Your task to perform on an android device: Clear the cart on amazon. Search for "lenovo thinkpad" on amazon, select the first entry, add it to the cart, then select checkout. Image 0: 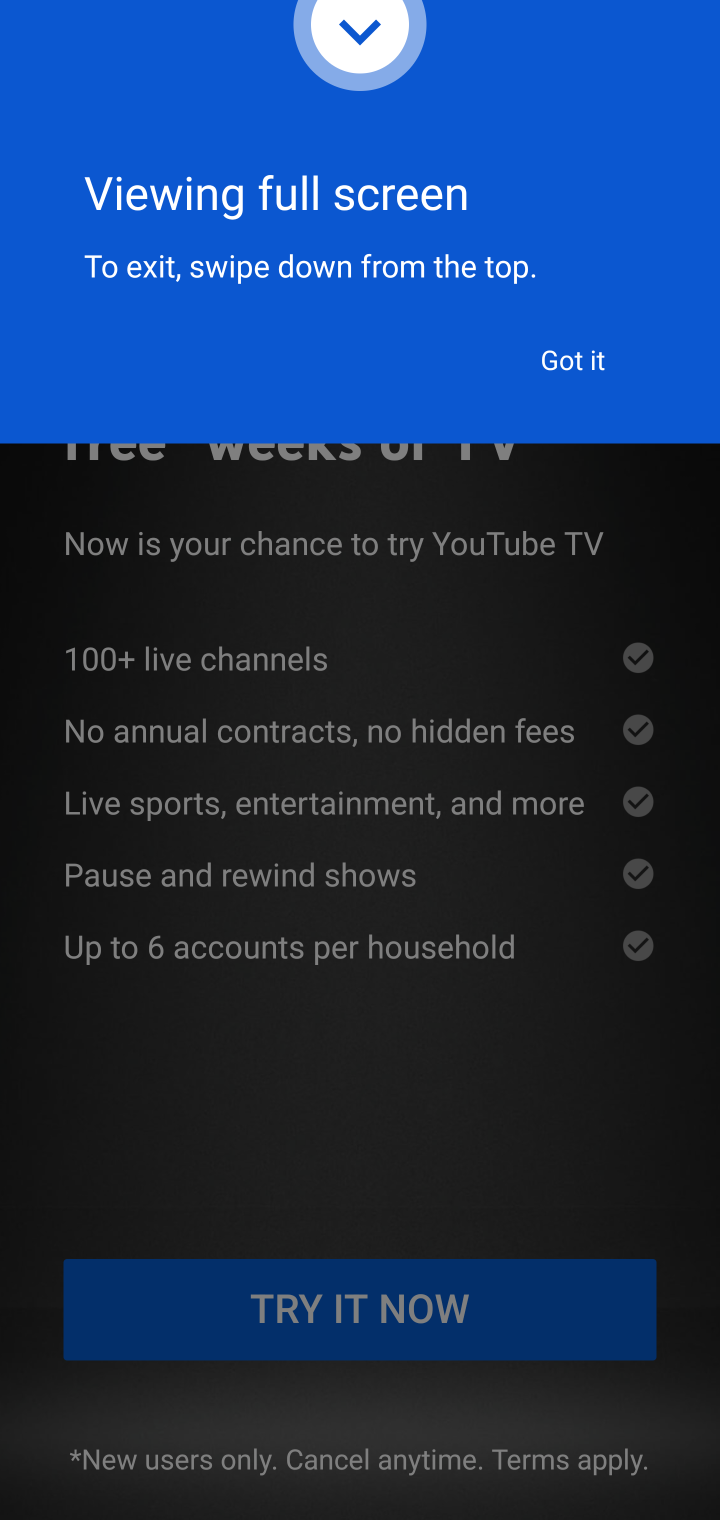
Step 0: press home button
Your task to perform on an android device: Clear the cart on amazon. Search for "lenovo thinkpad" on amazon, select the first entry, add it to the cart, then select checkout. Image 1: 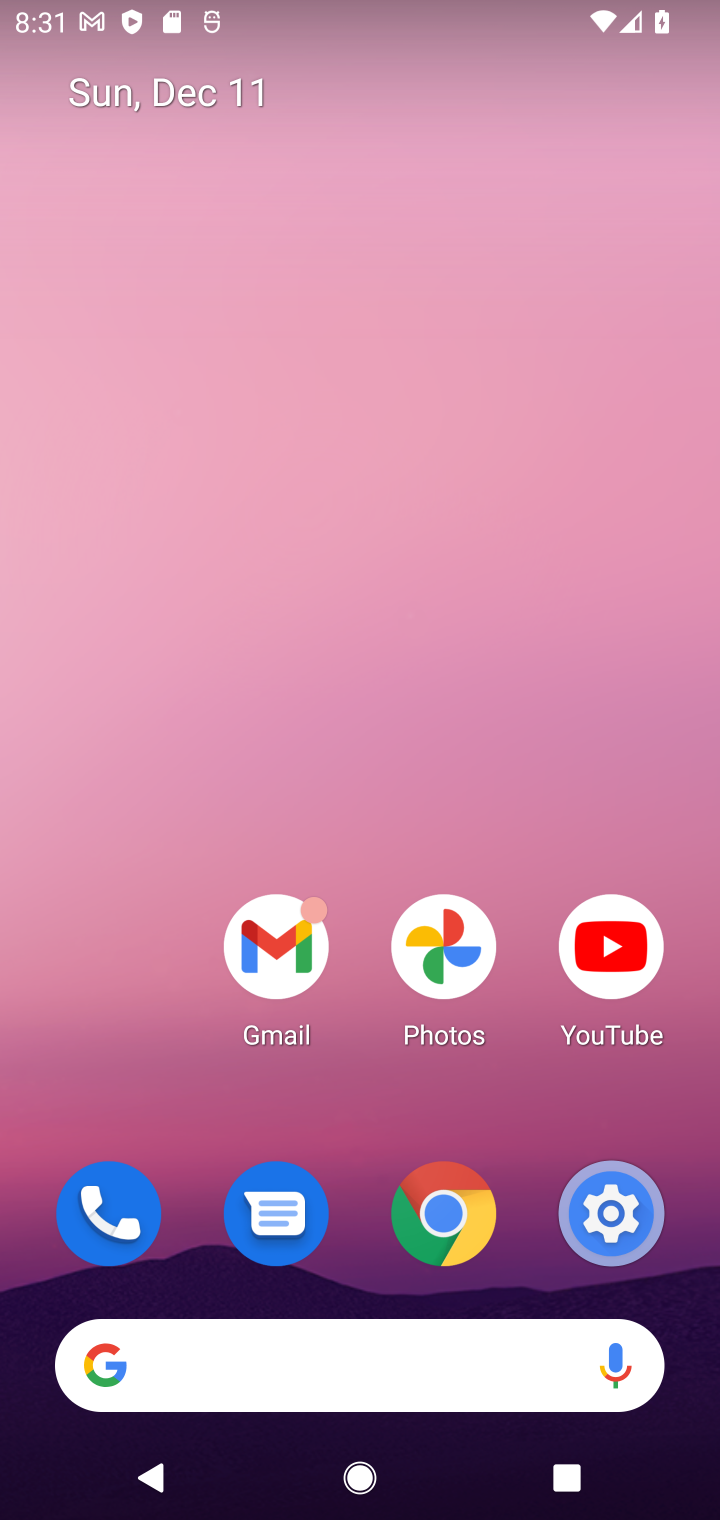
Step 1: click (364, 1398)
Your task to perform on an android device: Clear the cart on amazon. Search for "lenovo thinkpad" on amazon, select the first entry, add it to the cart, then select checkout. Image 2: 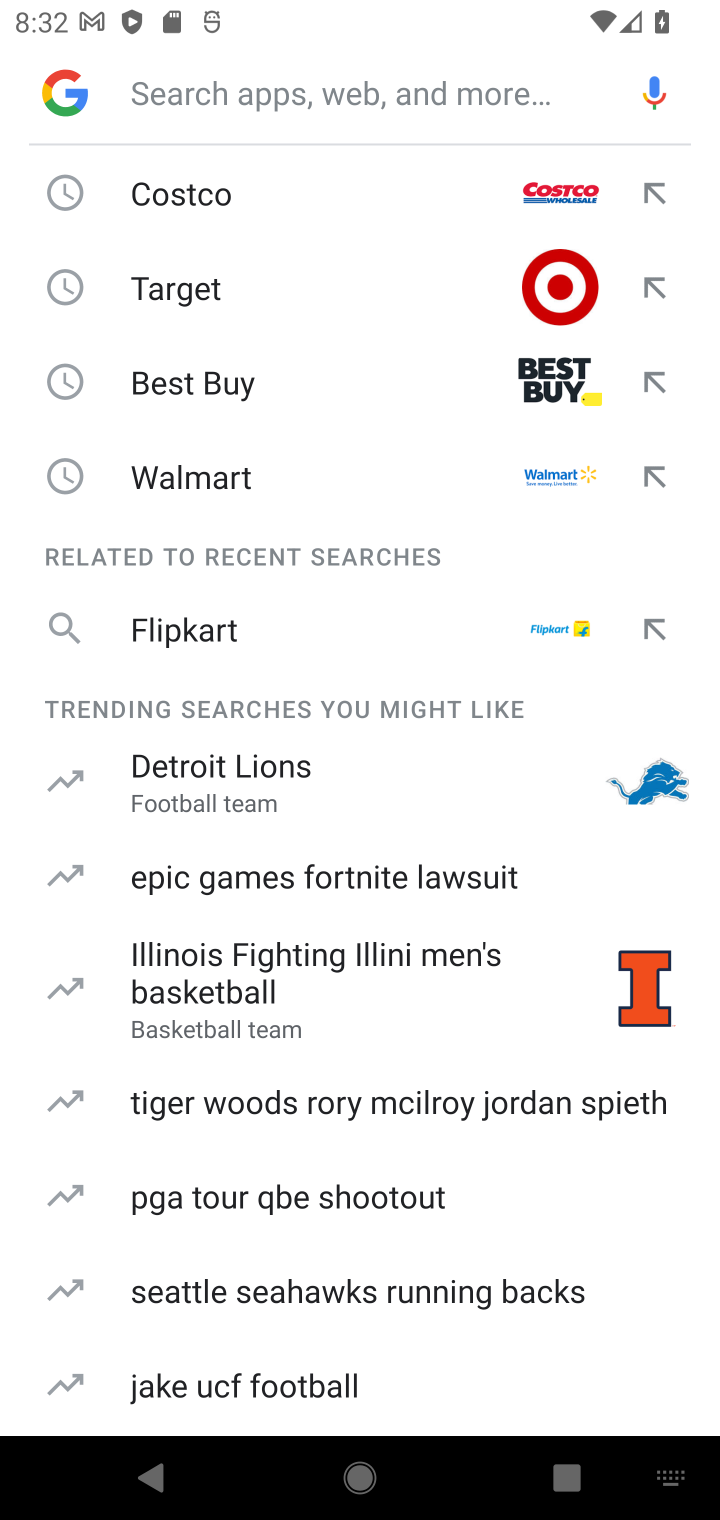
Step 2: type "amazon"
Your task to perform on an android device: Clear the cart on amazon. Search for "lenovo thinkpad" on amazon, select the first entry, add it to the cart, then select checkout. Image 3: 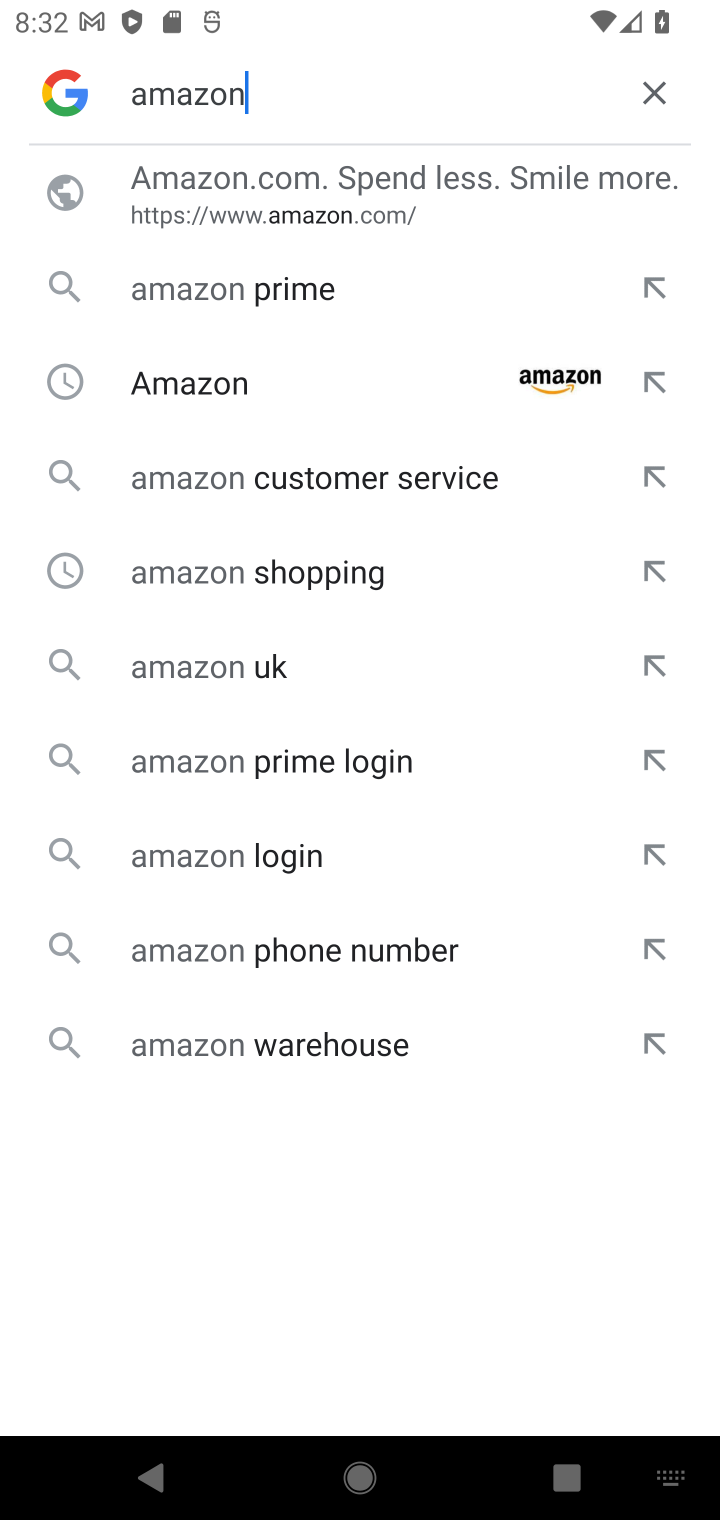
Step 3: click (384, 197)
Your task to perform on an android device: Clear the cart on amazon. Search for "lenovo thinkpad" on amazon, select the first entry, add it to the cart, then select checkout. Image 4: 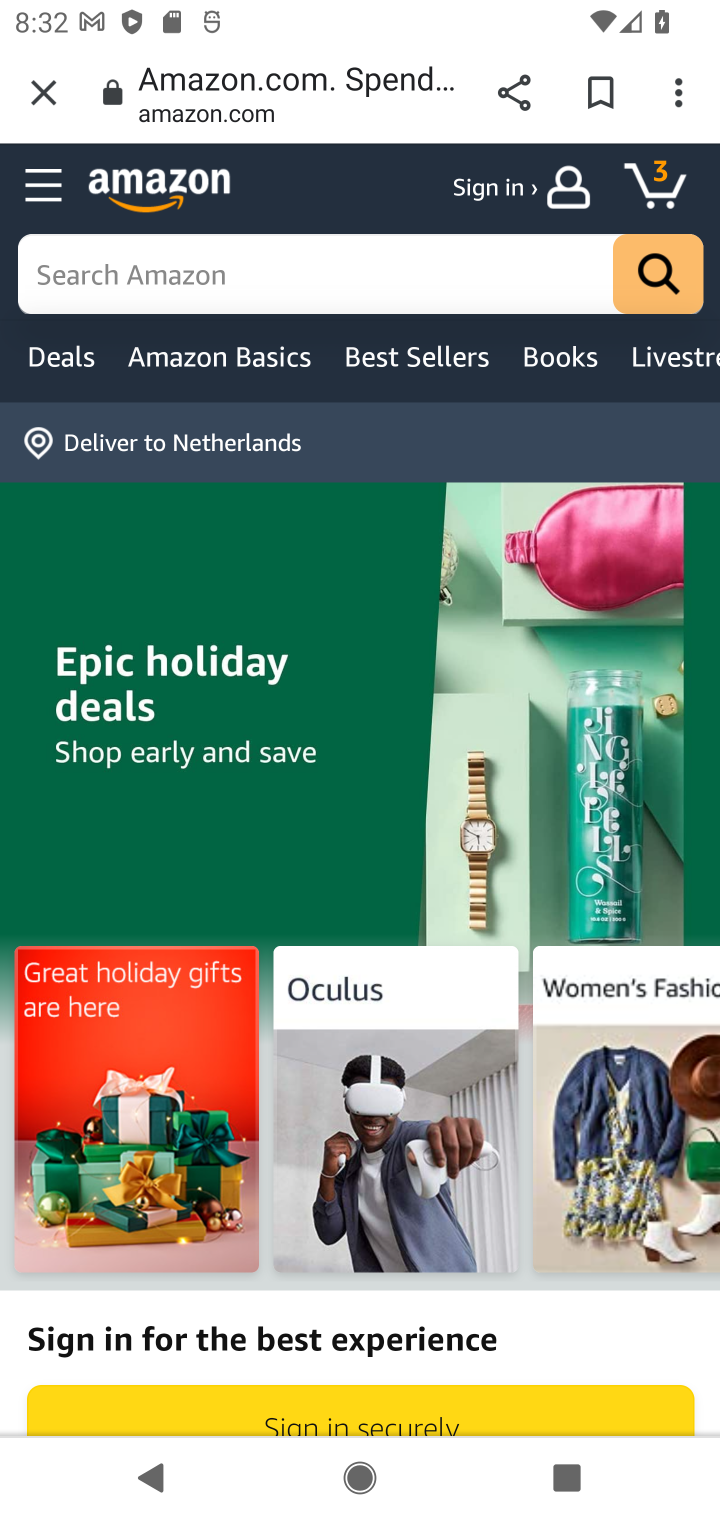
Step 4: click (274, 280)
Your task to perform on an android device: Clear the cart on amazon. Search for "lenovo thinkpad" on amazon, select the first entry, add it to the cart, then select checkout. Image 5: 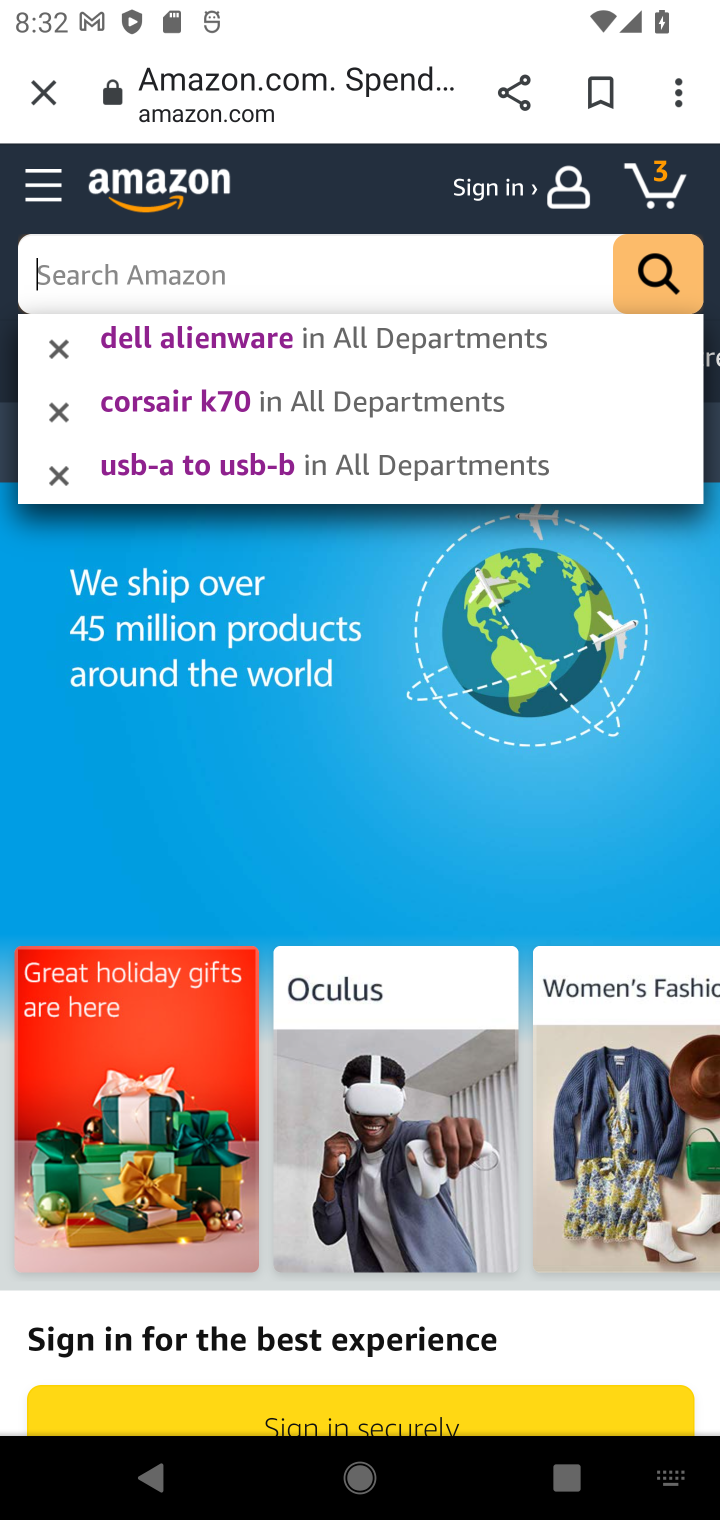
Step 5: type "lenovo thinkpad"
Your task to perform on an android device: Clear the cart on amazon. Search for "lenovo thinkpad" on amazon, select the first entry, add it to the cart, then select checkout. Image 6: 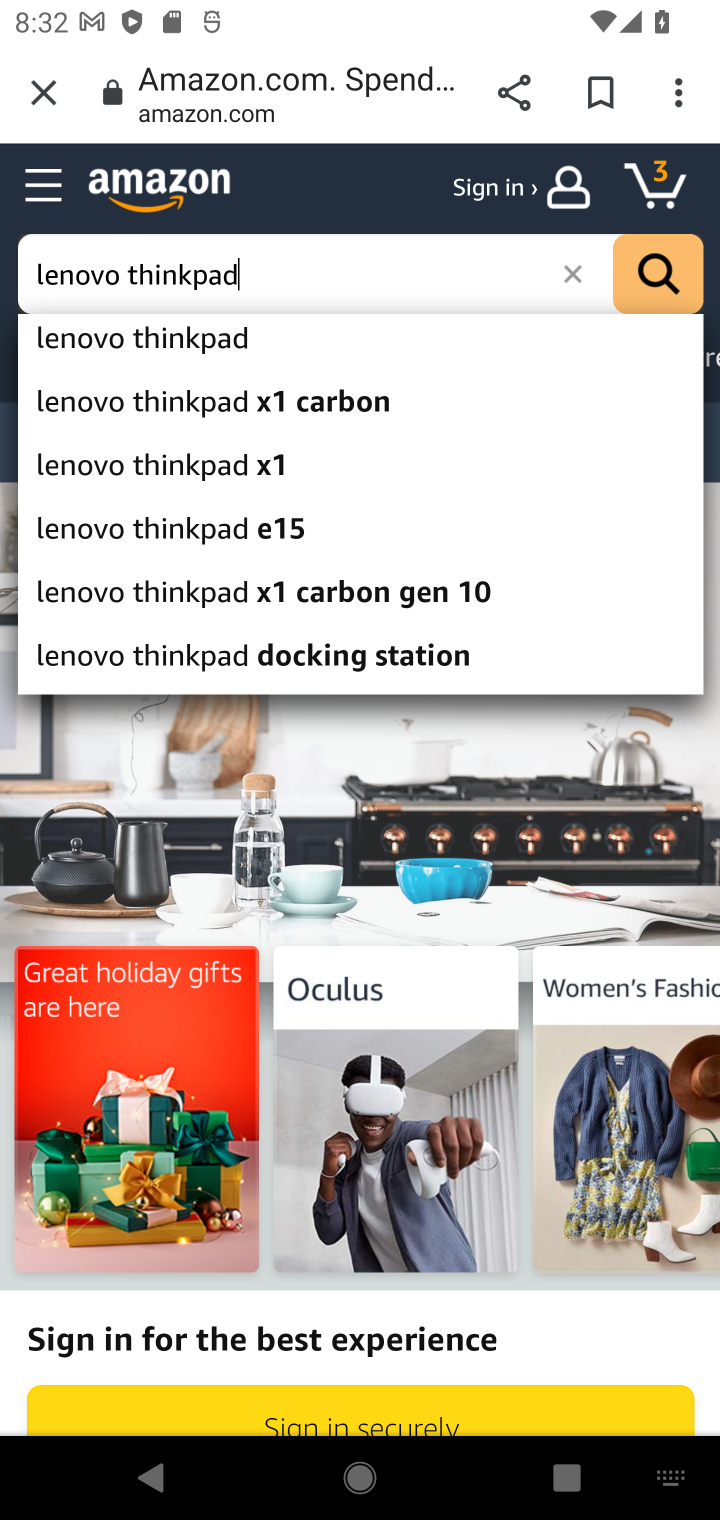
Step 6: click (125, 335)
Your task to perform on an android device: Clear the cart on amazon. Search for "lenovo thinkpad" on amazon, select the first entry, add it to the cart, then select checkout. Image 7: 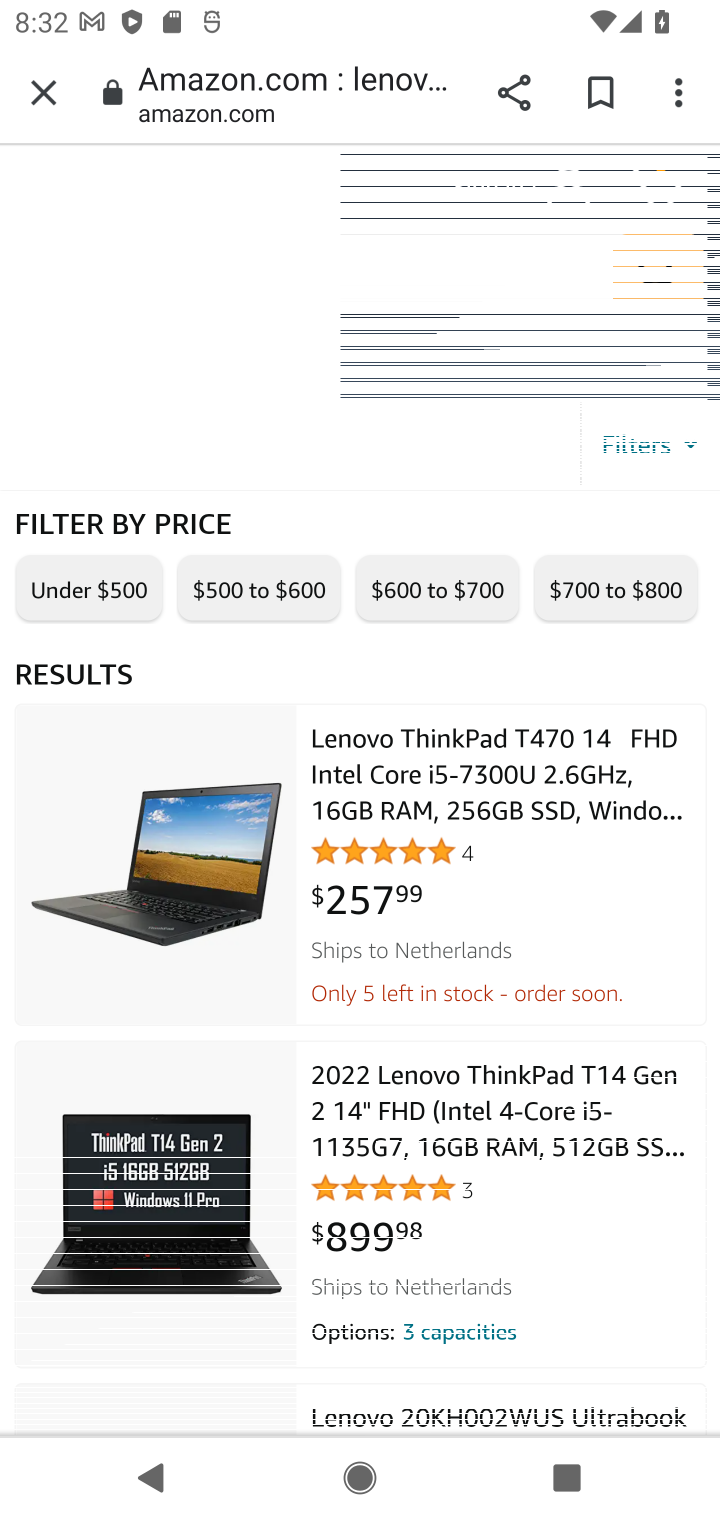
Step 7: click (478, 827)
Your task to perform on an android device: Clear the cart on amazon. Search for "lenovo thinkpad" on amazon, select the first entry, add it to the cart, then select checkout. Image 8: 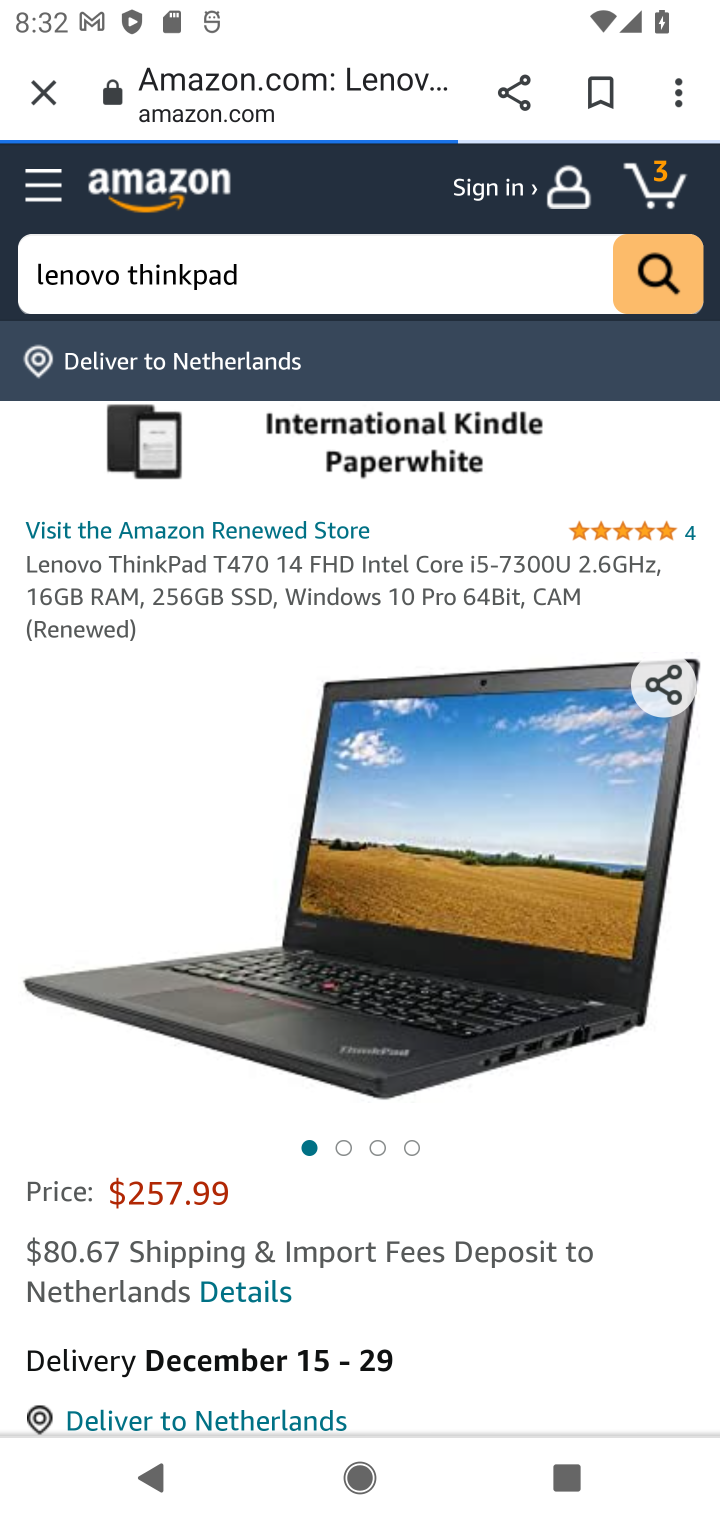
Step 8: drag from (448, 1188) to (415, 563)
Your task to perform on an android device: Clear the cart on amazon. Search for "lenovo thinkpad" on amazon, select the first entry, add it to the cart, then select checkout. Image 9: 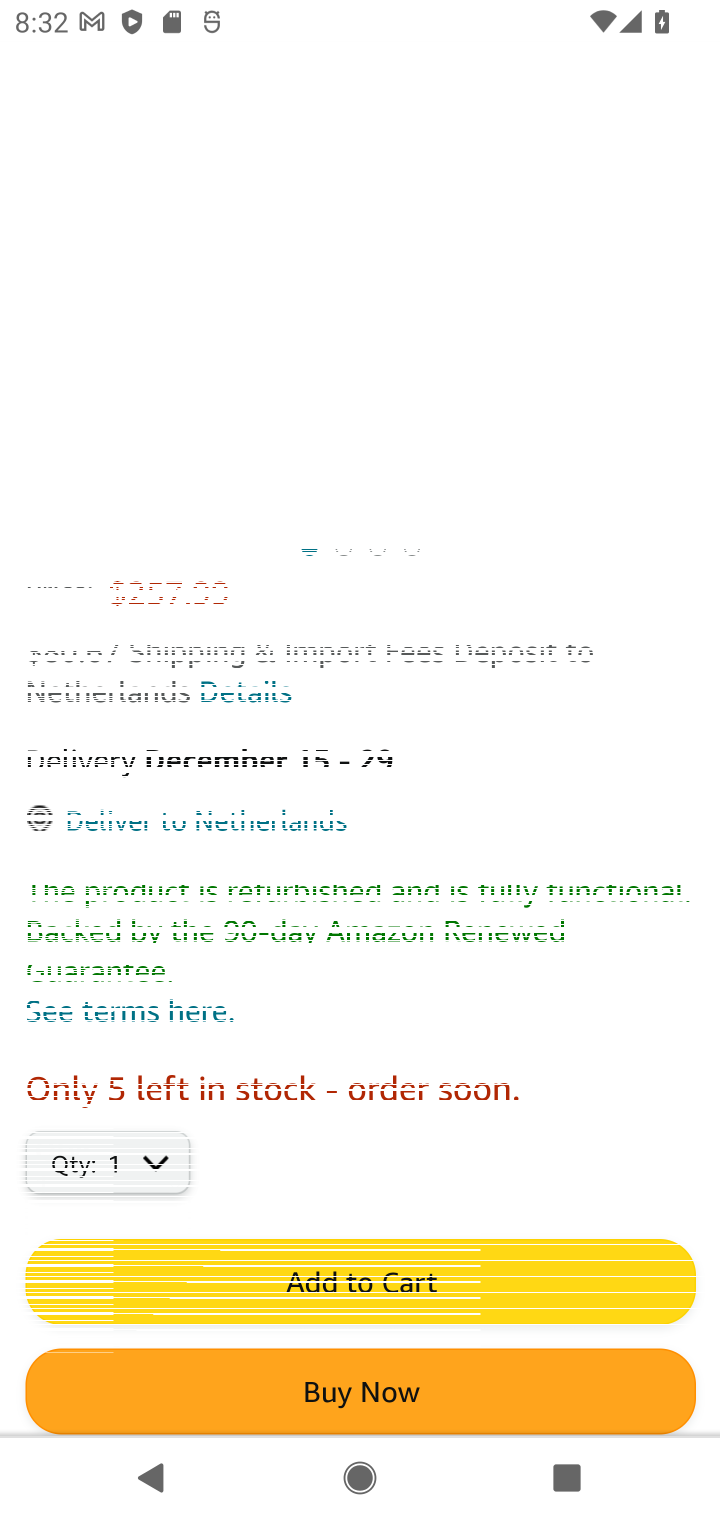
Step 9: click (373, 1246)
Your task to perform on an android device: Clear the cart on amazon. Search for "lenovo thinkpad" on amazon, select the first entry, add it to the cart, then select checkout. Image 10: 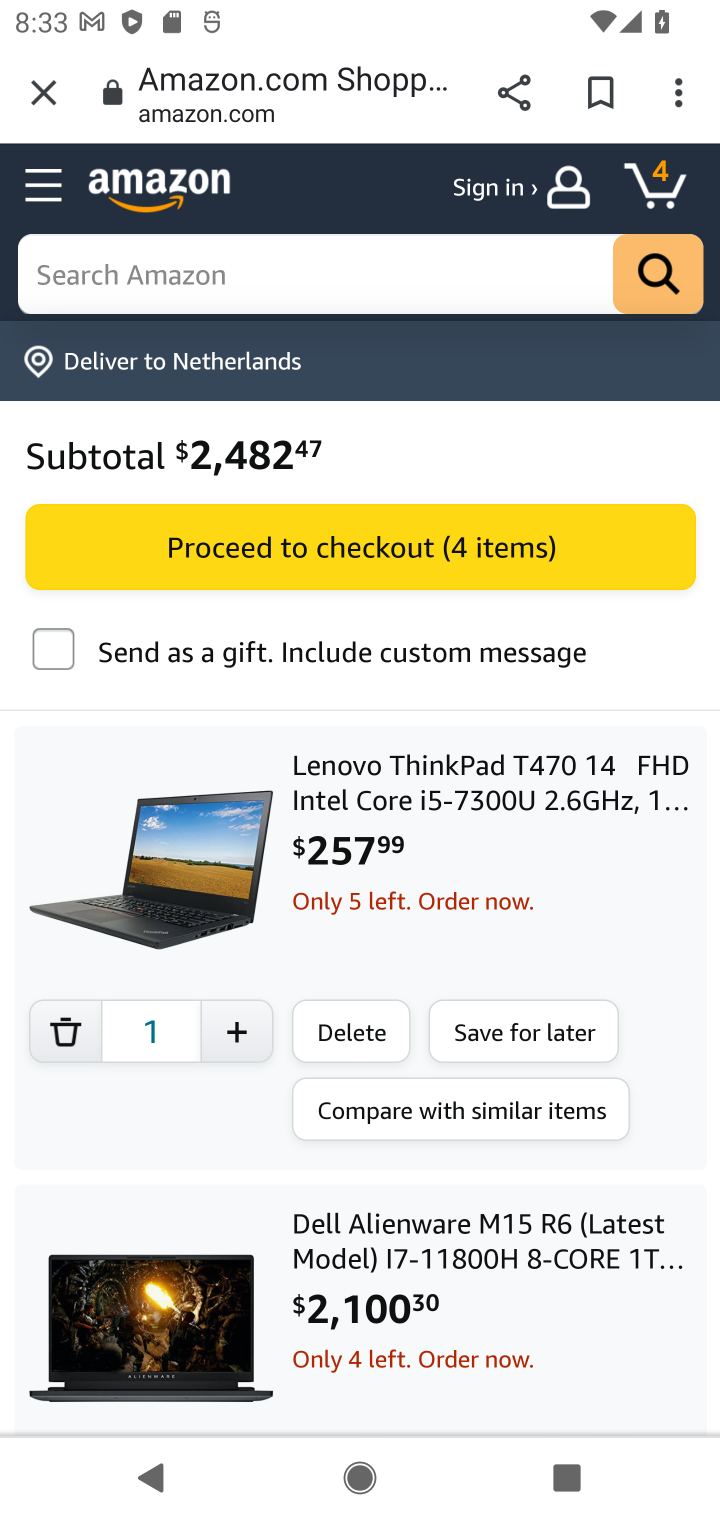
Step 10: task complete